Your task to perform on an android device: Open wifi settings Image 0: 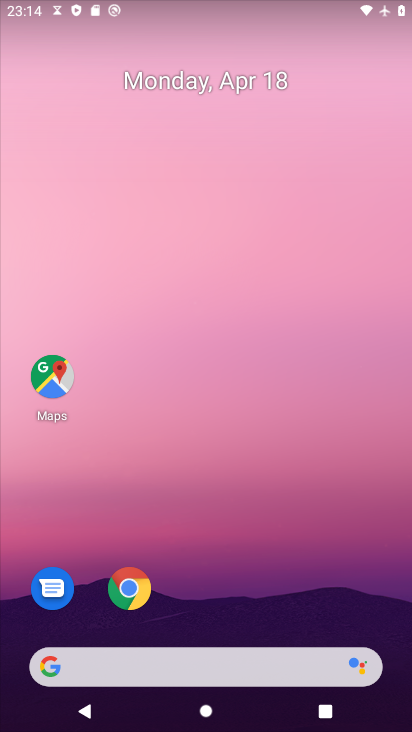
Step 0: drag from (316, 556) to (144, 16)
Your task to perform on an android device: Open wifi settings Image 1: 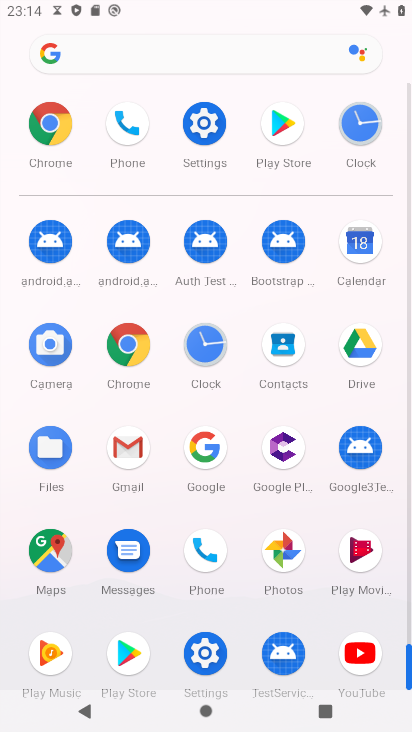
Step 1: drag from (7, 489) to (4, 247)
Your task to perform on an android device: Open wifi settings Image 2: 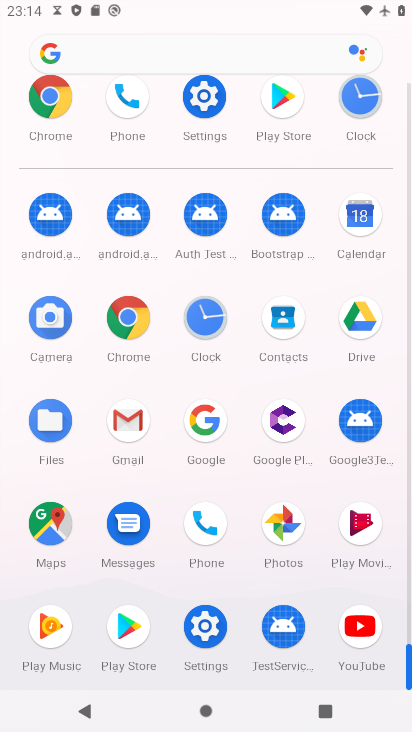
Step 2: click (199, 622)
Your task to perform on an android device: Open wifi settings Image 3: 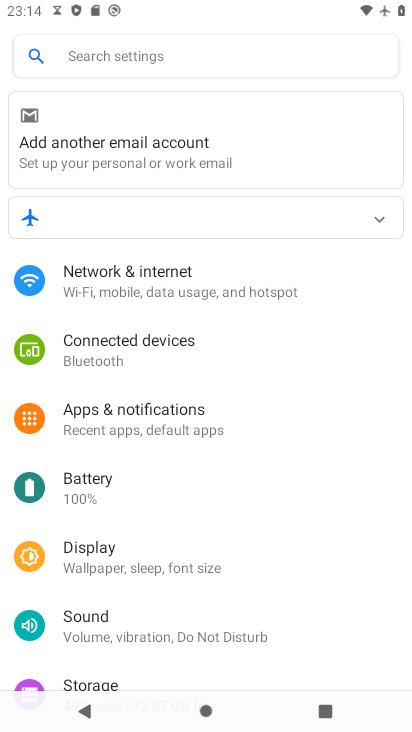
Step 3: drag from (305, 497) to (305, 114)
Your task to perform on an android device: Open wifi settings Image 4: 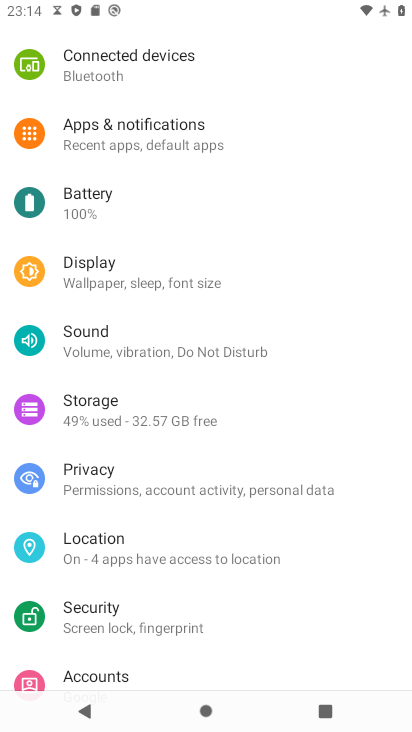
Step 4: drag from (241, 114) to (250, 561)
Your task to perform on an android device: Open wifi settings Image 5: 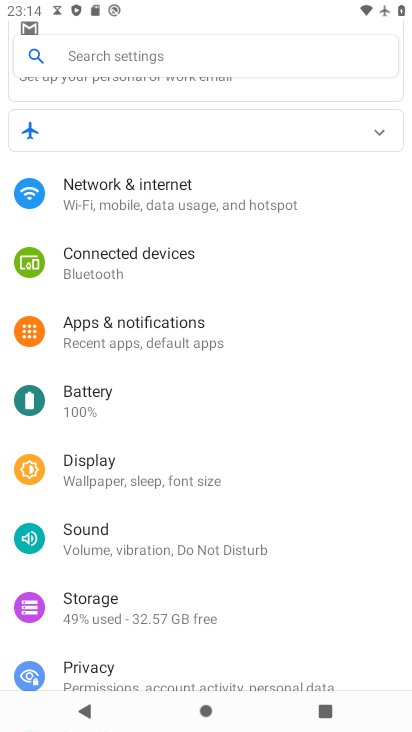
Step 5: click (169, 200)
Your task to perform on an android device: Open wifi settings Image 6: 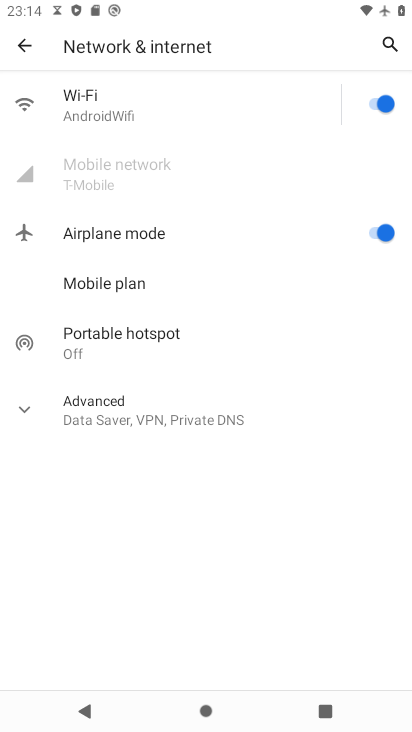
Step 6: click (142, 95)
Your task to perform on an android device: Open wifi settings Image 7: 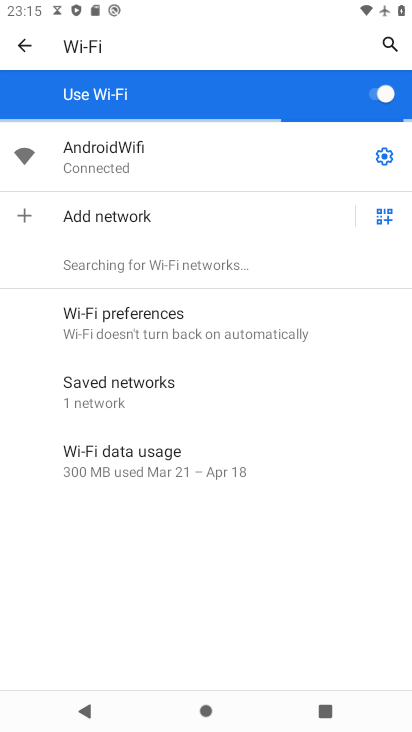
Step 7: task complete